Your task to perform on an android device: set the timer Image 0: 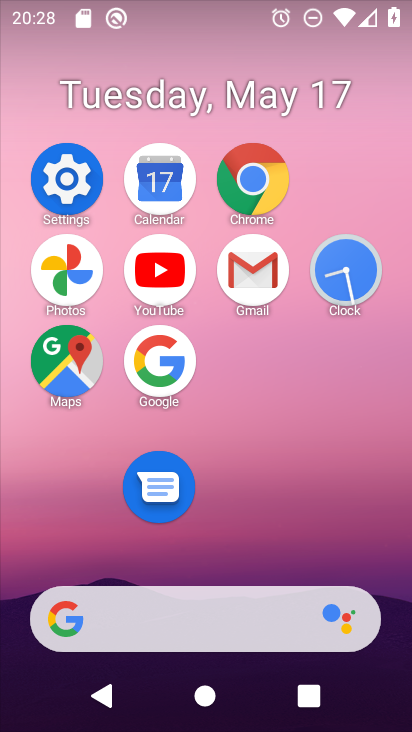
Step 0: click (326, 276)
Your task to perform on an android device: set the timer Image 1: 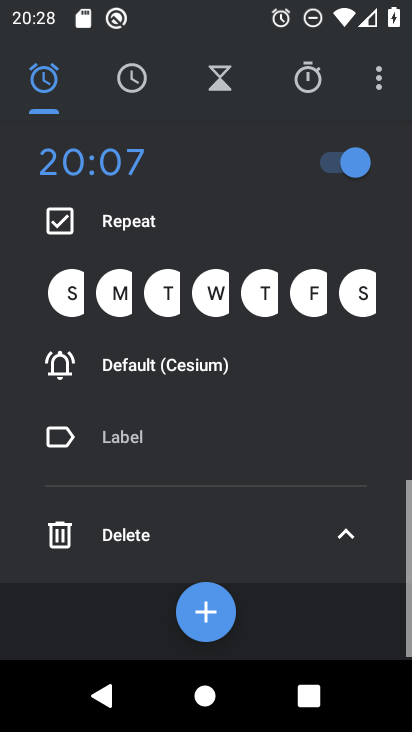
Step 1: click (209, 76)
Your task to perform on an android device: set the timer Image 2: 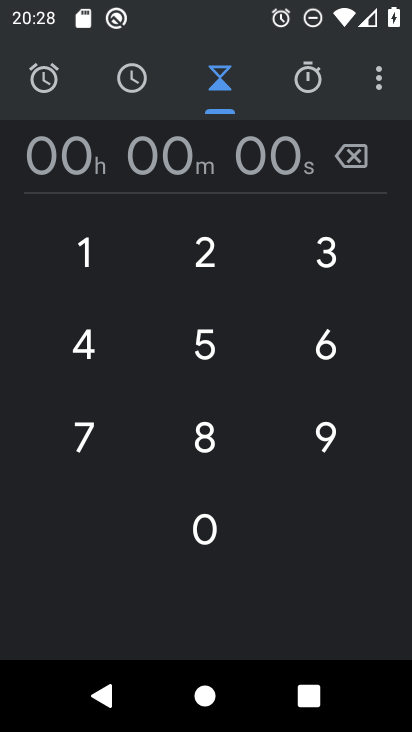
Step 2: click (192, 236)
Your task to perform on an android device: set the timer Image 3: 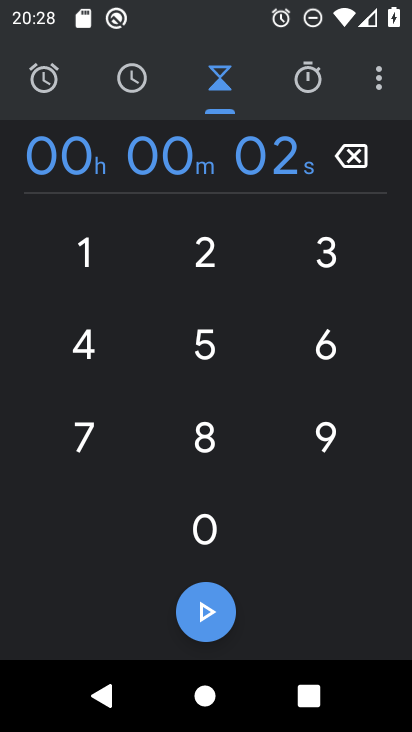
Step 3: click (212, 260)
Your task to perform on an android device: set the timer Image 4: 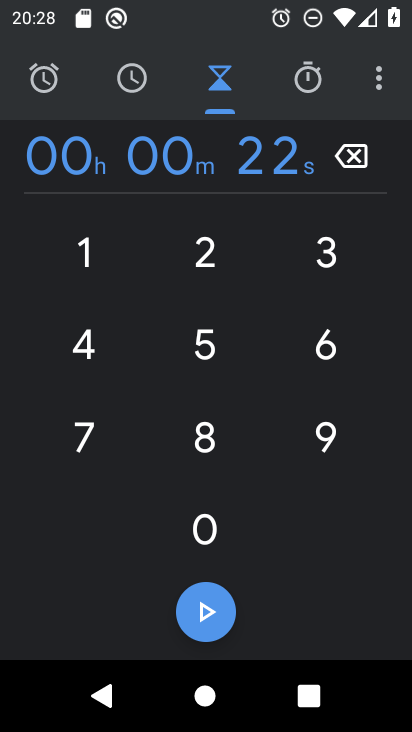
Step 4: click (211, 605)
Your task to perform on an android device: set the timer Image 5: 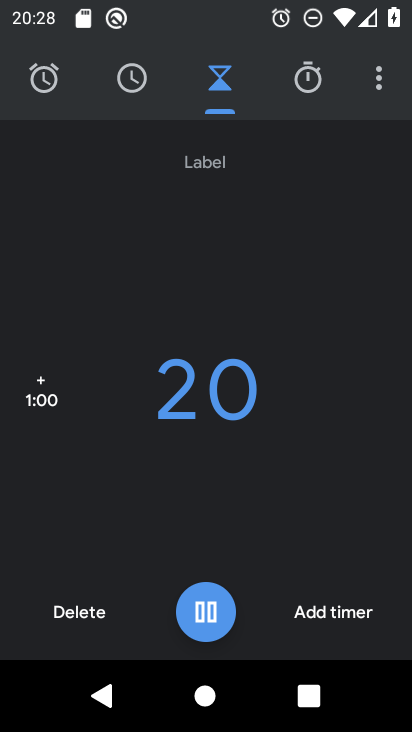
Step 5: task complete